Your task to perform on an android device: toggle javascript in the chrome app Image 0: 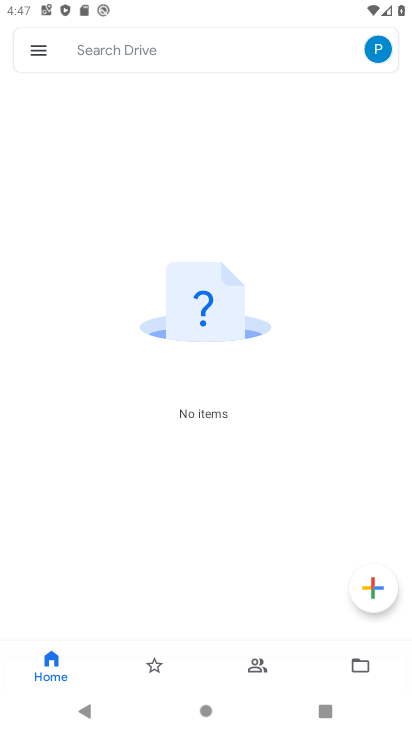
Step 0: press home button
Your task to perform on an android device: toggle javascript in the chrome app Image 1: 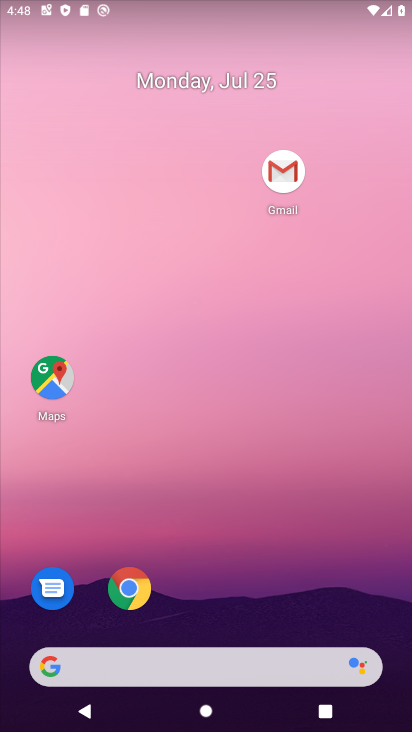
Step 1: drag from (255, 402) to (288, 92)
Your task to perform on an android device: toggle javascript in the chrome app Image 2: 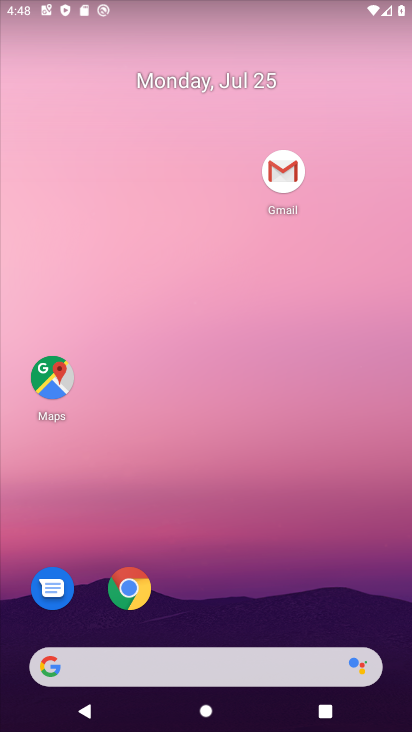
Step 2: drag from (340, 587) to (379, 61)
Your task to perform on an android device: toggle javascript in the chrome app Image 3: 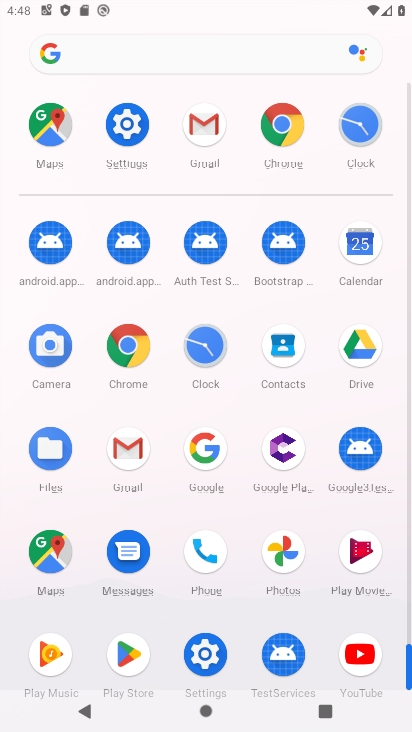
Step 3: click (126, 350)
Your task to perform on an android device: toggle javascript in the chrome app Image 4: 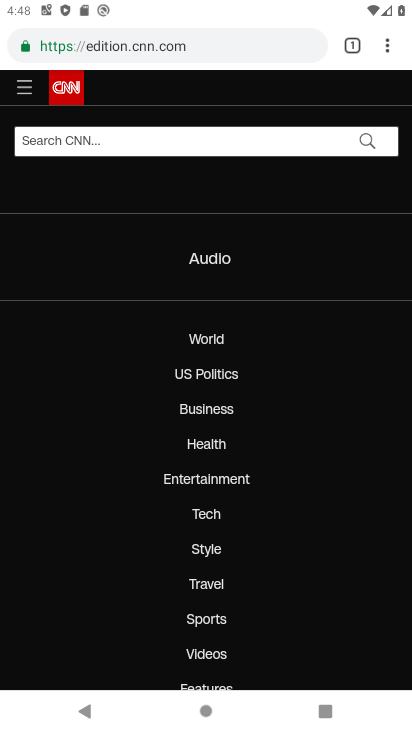
Step 4: click (386, 39)
Your task to perform on an android device: toggle javascript in the chrome app Image 5: 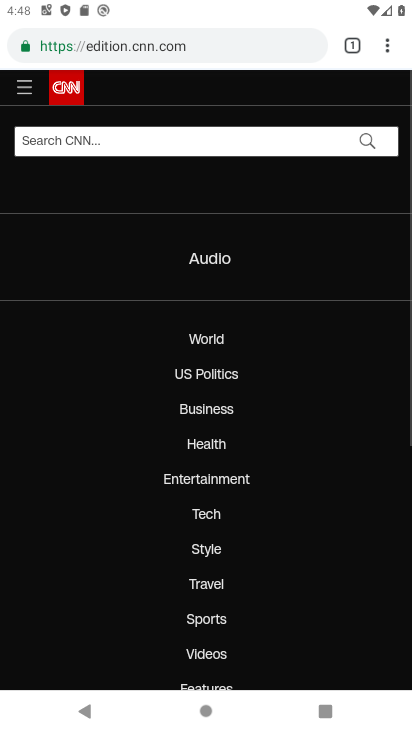
Step 5: drag from (383, 43) to (237, 541)
Your task to perform on an android device: toggle javascript in the chrome app Image 6: 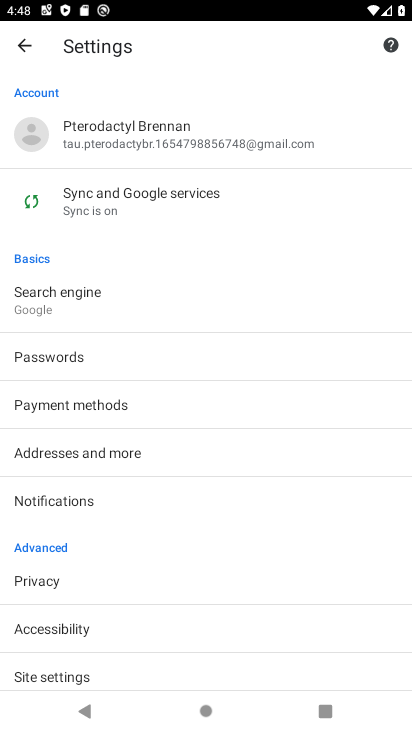
Step 6: drag from (177, 632) to (259, 242)
Your task to perform on an android device: toggle javascript in the chrome app Image 7: 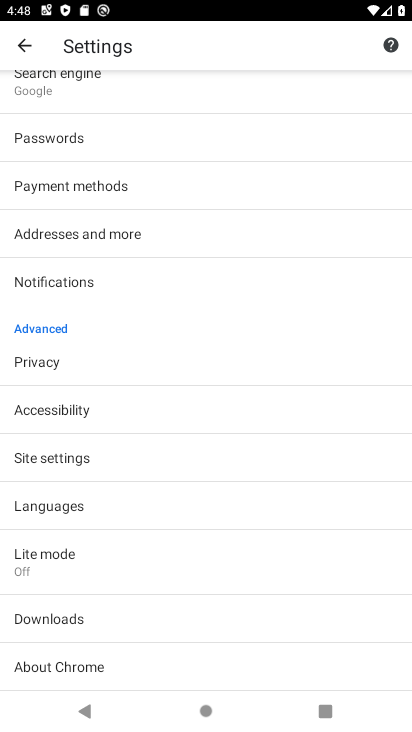
Step 7: click (67, 455)
Your task to perform on an android device: toggle javascript in the chrome app Image 8: 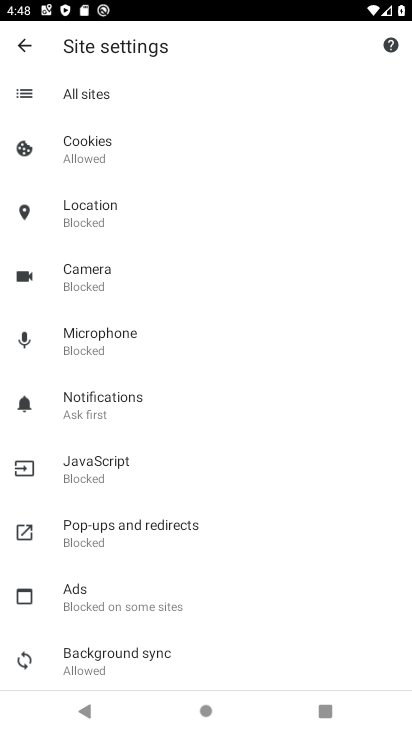
Step 8: click (87, 473)
Your task to perform on an android device: toggle javascript in the chrome app Image 9: 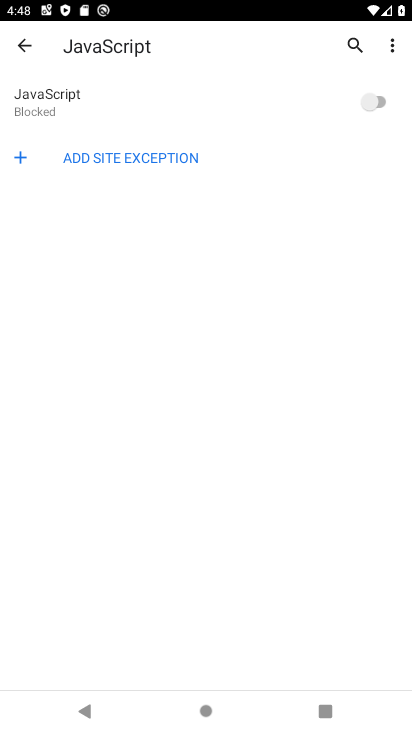
Step 9: click (383, 91)
Your task to perform on an android device: toggle javascript in the chrome app Image 10: 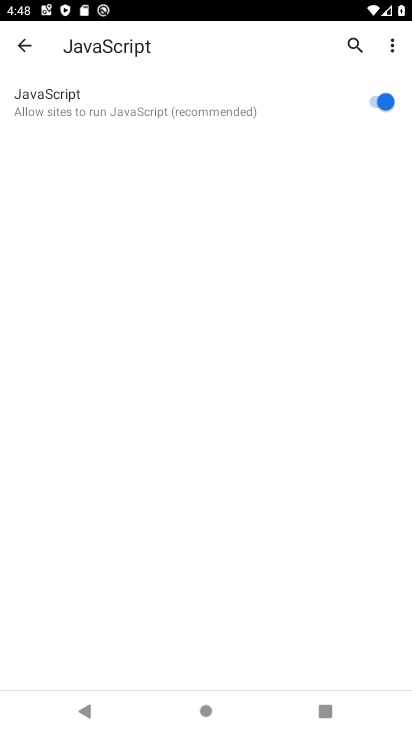
Step 10: task complete